Your task to perform on an android device: What's the news in Laos? Image 0: 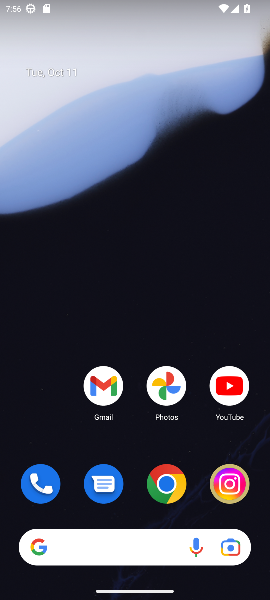
Step 0: click (166, 483)
Your task to perform on an android device: What's the news in Laos? Image 1: 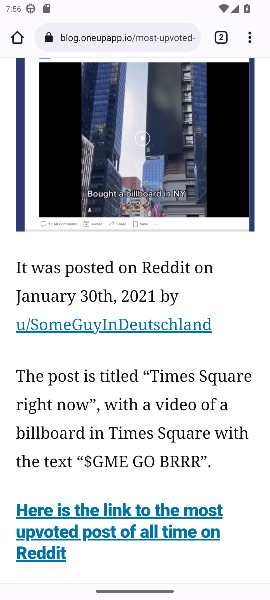
Step 1: click (128, 35)
Your task to perform on an android device: What's the news in Laos? Image 2: 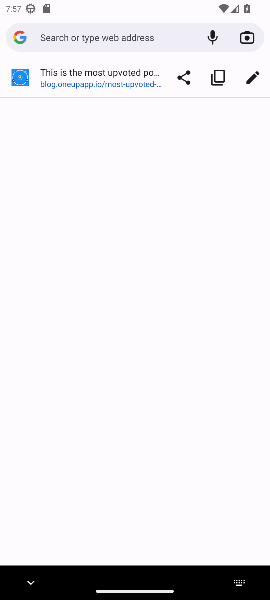
Step 2: type "What's the news in Laos?"
Your task to perform on an android device: What's the news in Laos? Image 3: 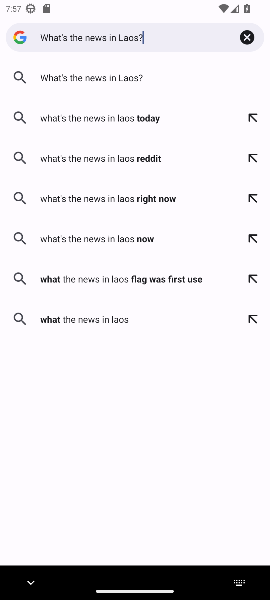
Step 3: click (110, 75)
Your task to perform on an android device: What's the news in Laos? Image 4: 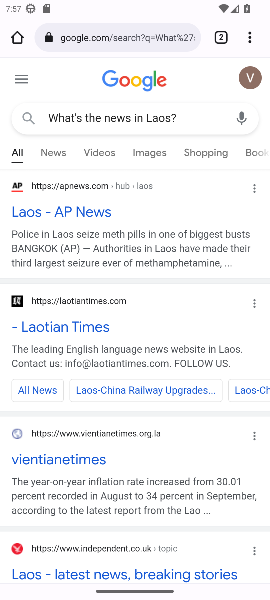
Step 4: drag from (91, 549) to (165, 377)
Your task to perform on an android device: What's the news in Laos? Image 5: 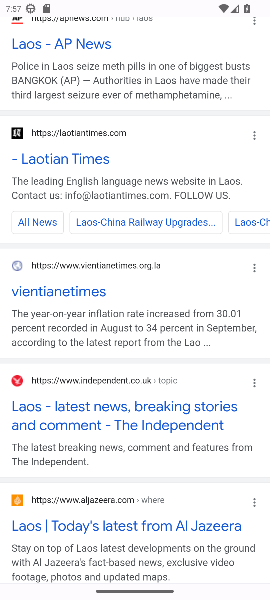
Step 5: click (126, 520)
Your task to perform on an android device: What's the news in Laos? Image 6: 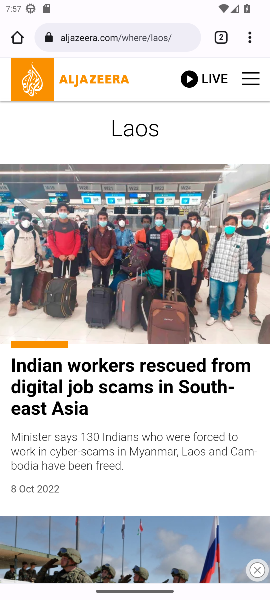
Step 6: task complete